Your task to perform on an android device: Open Youtube and go to the subscriptions tab Image 0: 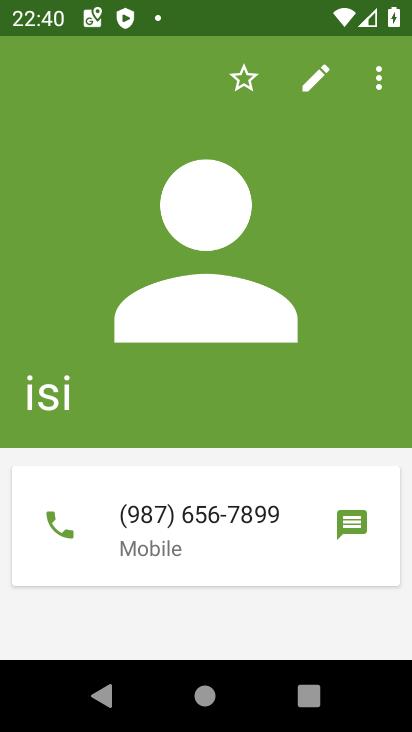
Step 0: press home button
Your task to perform on an android device: Open Youtube and go to the subscriptions tab Image 1: 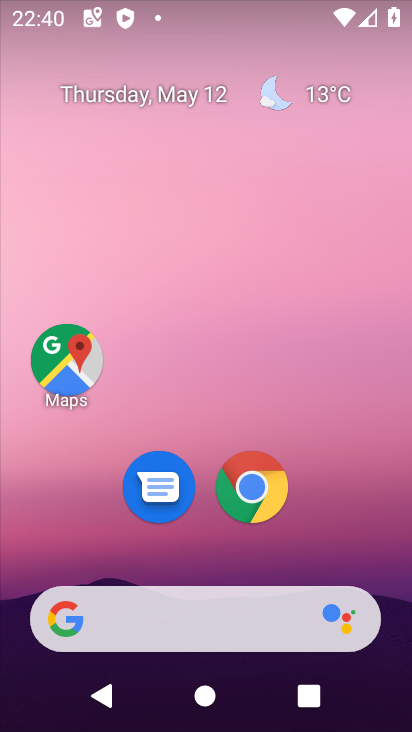
Step 1: drag from (169, 556) to (250, 100)
Your task to perform on an android device: Open Youtube and go to the subscriptions tab Image 2: 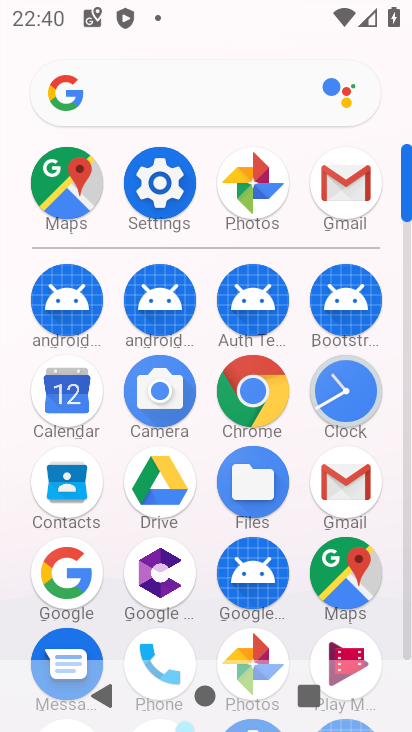
Step 2: drag from (218, 629) to (236, 436)
Your task to perform on an android device: Open Youtube and go to the subscriptions tab Image 3: 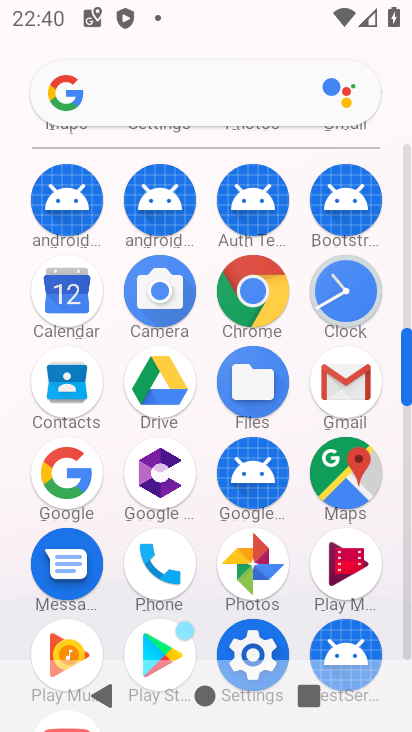
Step 3: click (236, 436)
Your task to perform on an android device: Open Youtube and go to the subscriptions tab Image 4: 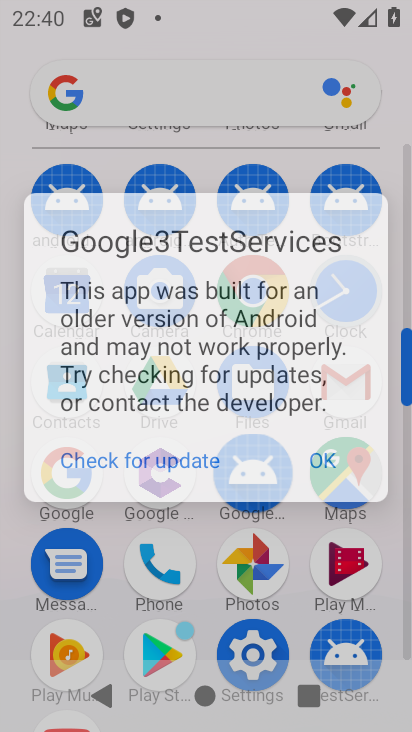
Step 4: drag from (180, 574) to (230, 286)
Your task to perform on an android device: Open Youtube and go to the subscriptions tab Image 5: 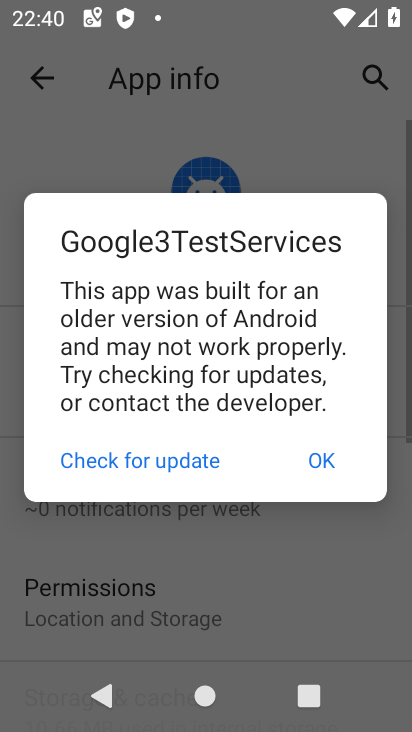
Step 5: click (342, 468)
Your task to perform on an android device: Open Youtube and go to the subscriptions tab Image 6: 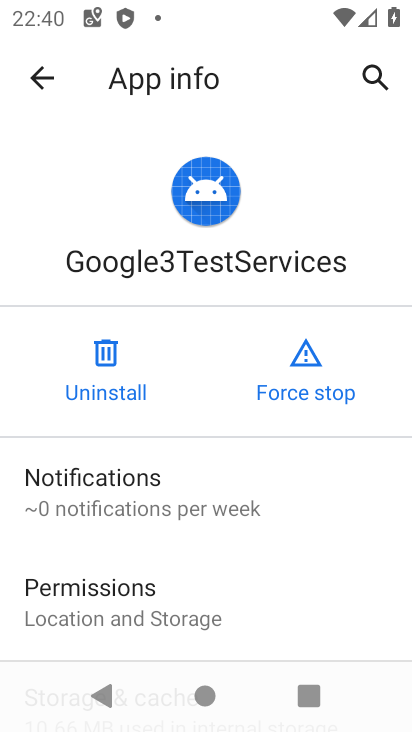
Step 6: press home button
Your task to perform on an android device: Open Youtube and go to the subscriptions tab Image 7: 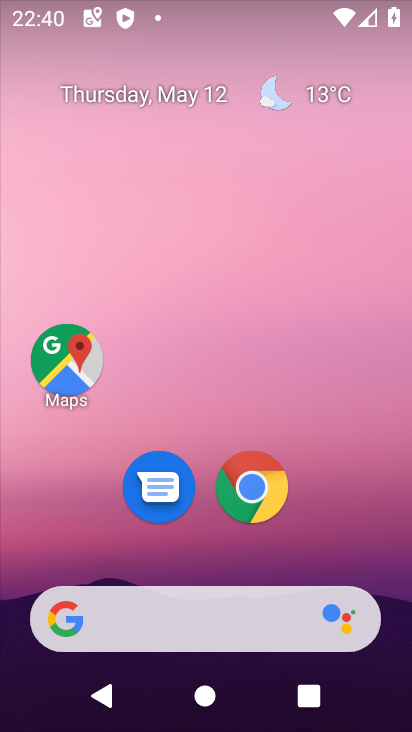
Step 7: drag from (213, 523) to (220, 227)
Your task to perform on an android device: Open Youtube and go to the subscriptions tab Image 8: 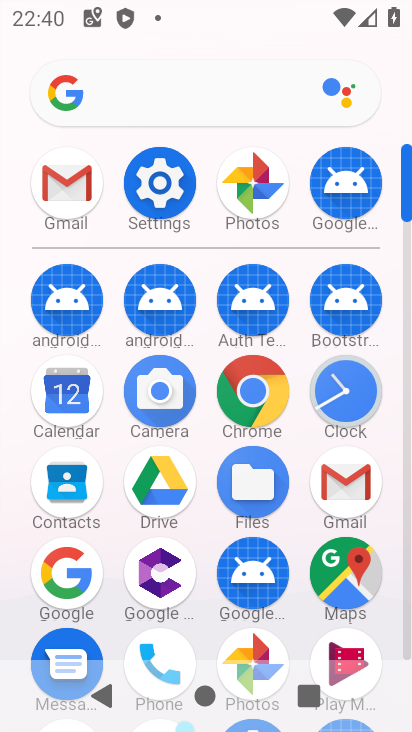
Step 8: drag from (192, 545) to (203, 225)
Your task to perform on an android device: Open Youtube and go to the subscriptions tab Image 9: 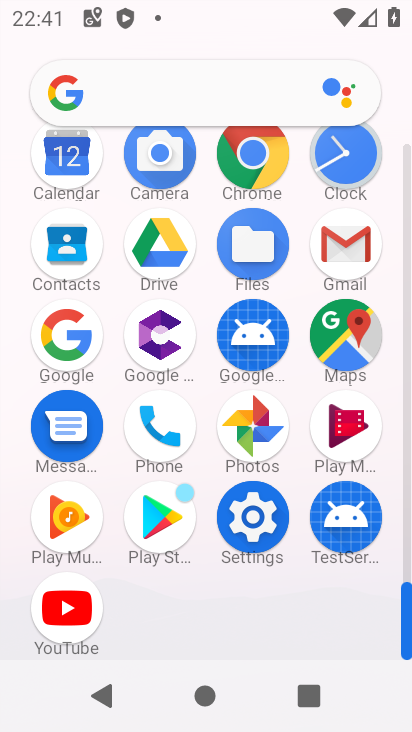
Step 9: click (68, 616)
Your task to perform on an android device: Open Youtube and go to the subscriptions tab Image 10: 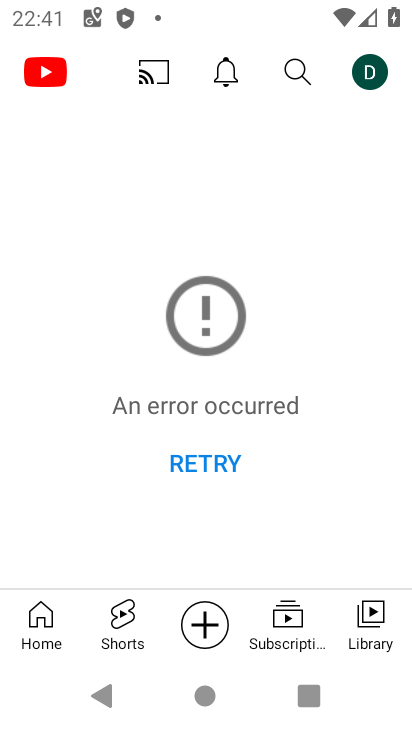
Step 10: click (297, 620)
Your task to perform on an android device: Open Youtube and go to the subscriptions tab Image 11: 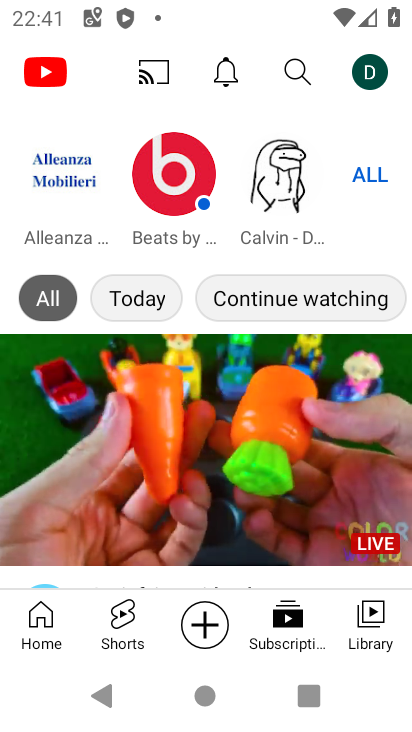
Step 11: task complete